Your task to perform on an android device: Go to eBay Image 0: 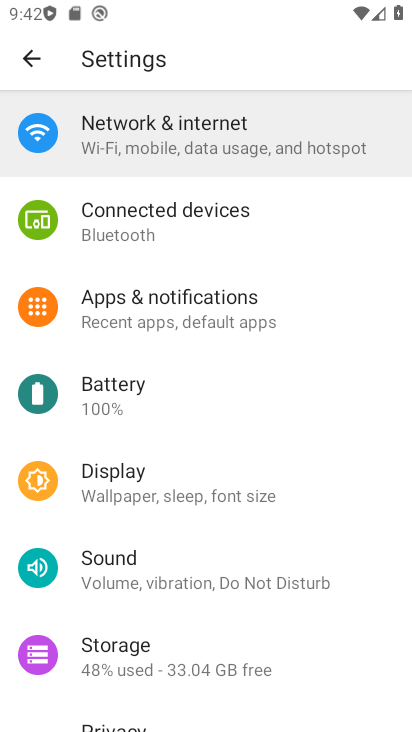
Step 0: press home button
Your task to perform on an android device: Go to eBay Image 1: 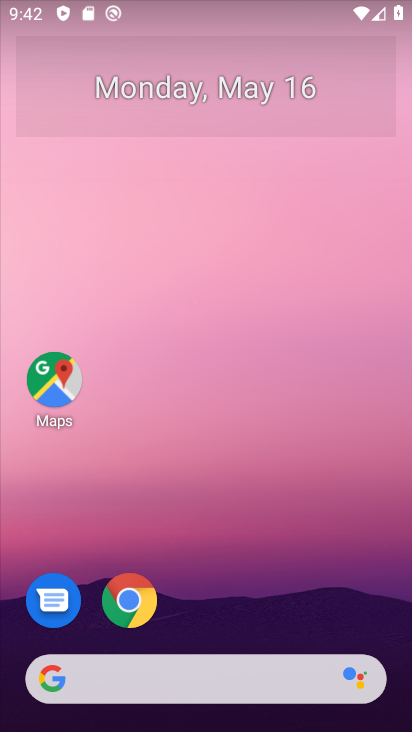
Step 1: drag from (279, 635) to (246, 159)
Your task to perform on an android device: Go to eBay Image 2: 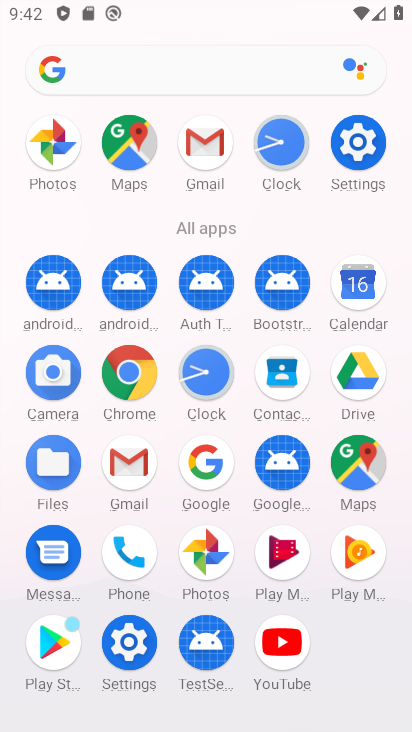
Step 2: click (136, 379)
Your task to perform on an android device: Go to eBay Image 3: 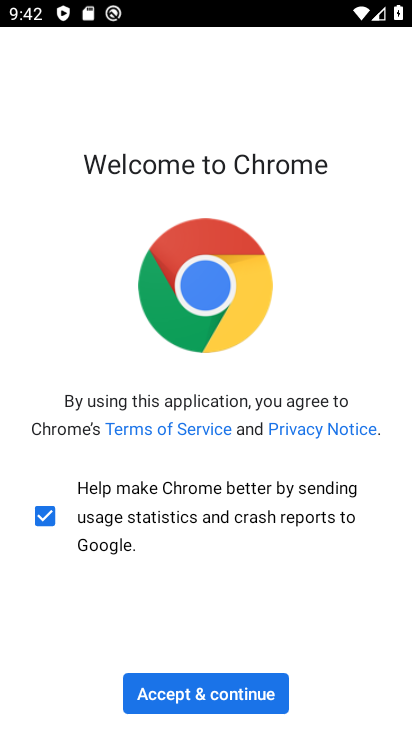
Step 3: click (187, 678)
Your task to perform on an android device: Go to eBay Image 4: 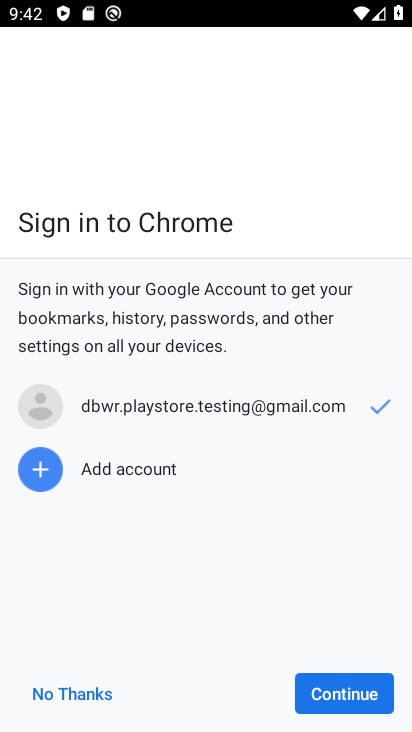
Step 4: click (334, 708)
Your task to perform on an android device: Go to eBay Image 5: 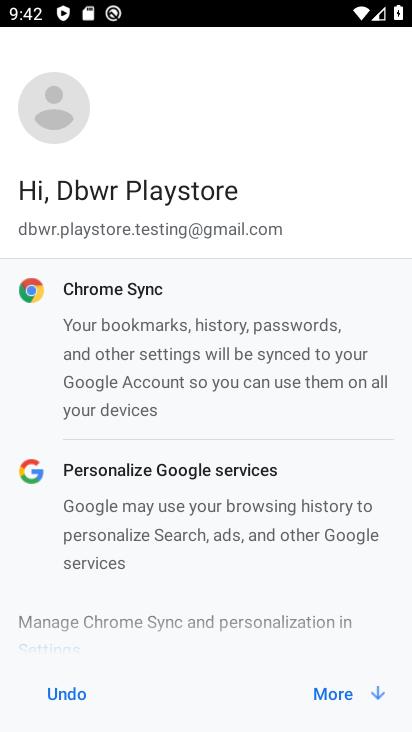
Step 5: click (338, 692)
Your task to perform on an android device: Go to eBay Image 6: 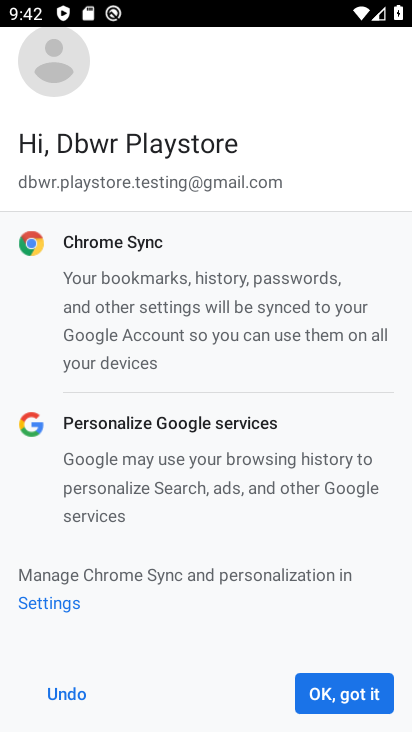
Step 6: click (338, 692)
Your task to perform on an android device: Go to eBay Image 7: 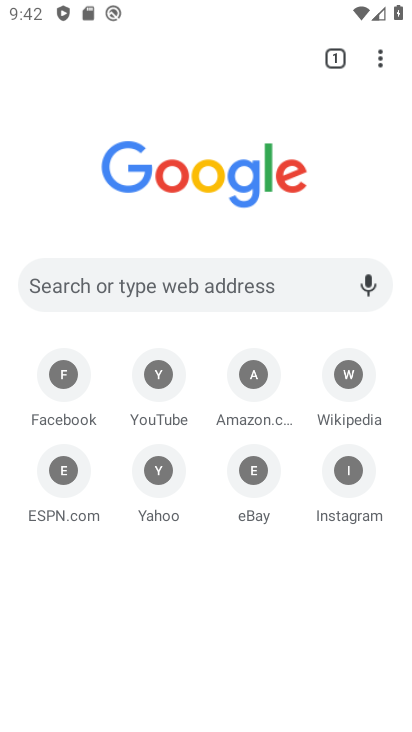
Step 7: click (195, 281)
Your task to perform on an android device: Go to eBay Image 8: 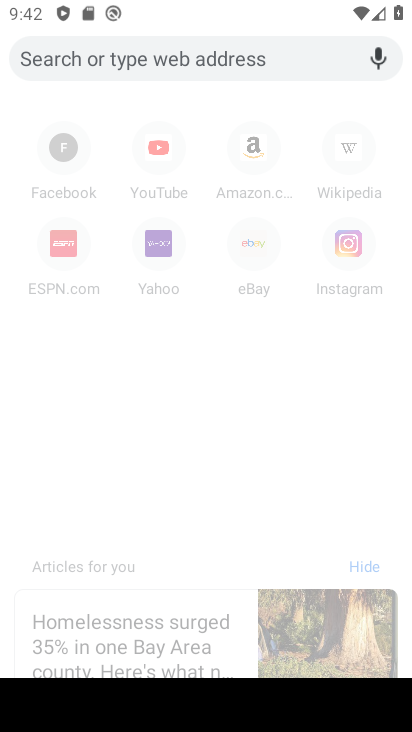
Step 8: type "ebay"
Your task to perform on an android device: Go to eBay Image 9: 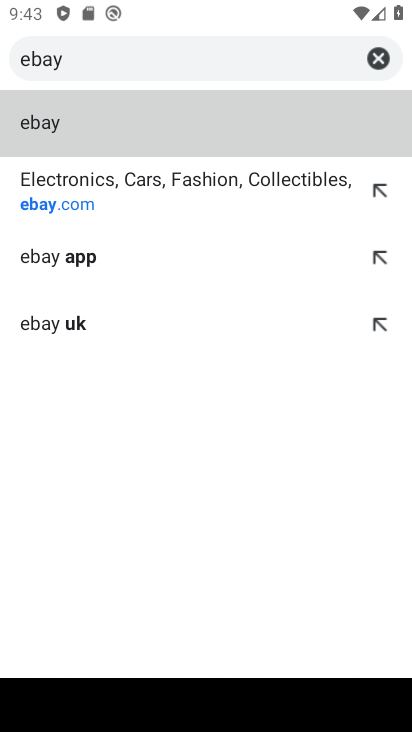
Step 9: click (162, 163)
Your task to perform on an android device: Go to eBay Image 10: 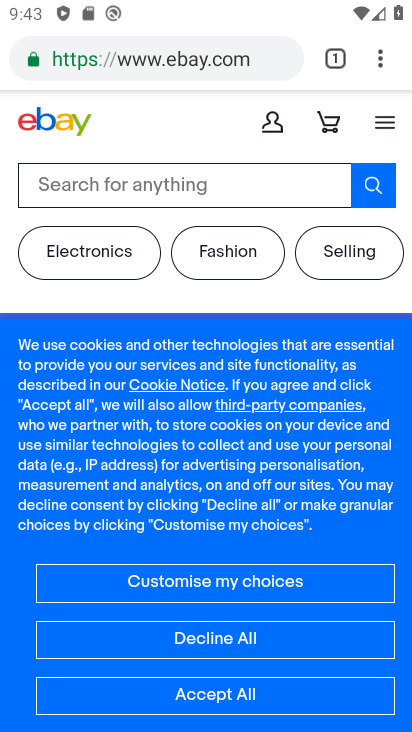
Step 10: task complete